Your task to perform on an android device: Do I have any events today? Image 0: 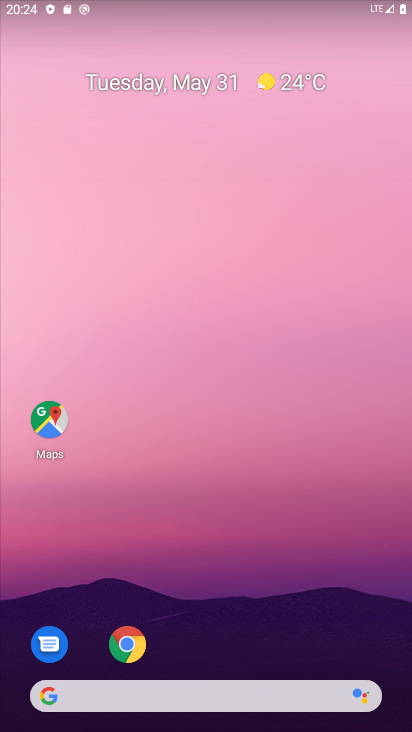
Step 0: drag from (309, 575) to (309, 115)
Your task to perform on an android device: Do I have any events today? Image 1: 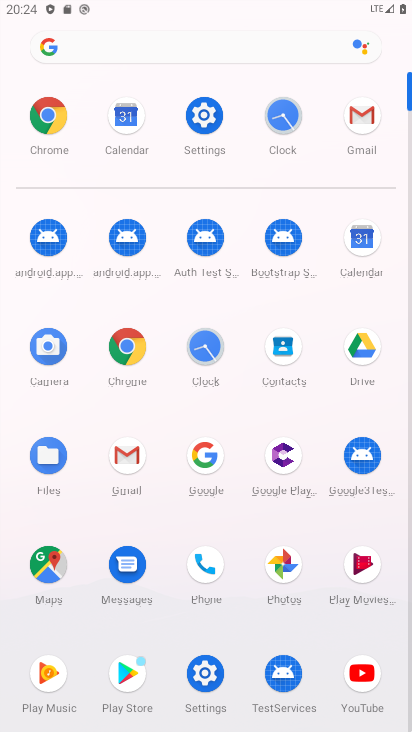
Step 1: click (362, 243)
Your task to perform on an android device: Do I have any events today? Image 2: 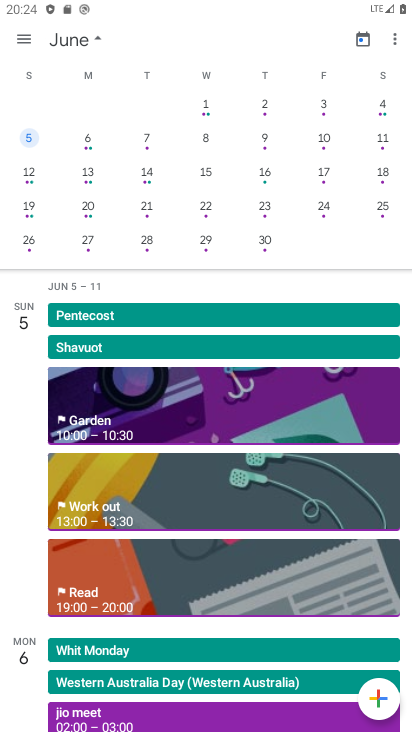
Step 2: click (81, 43)
Your task to perform on an android device: Do I have any events today? Image 3: 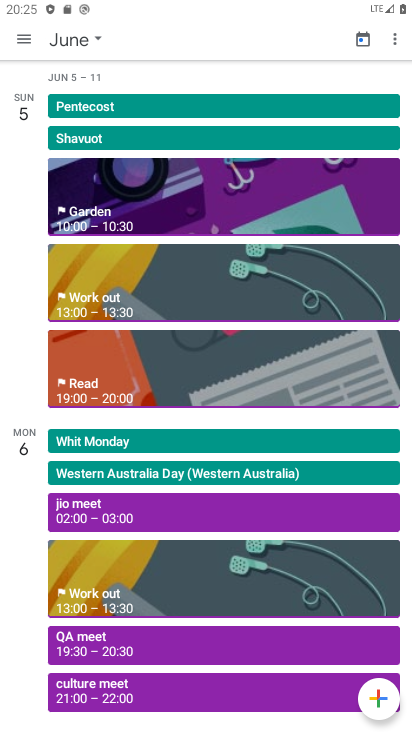
Step 3: click (70, 48)
Your task to perform on an android device: Do I have any events today? Image 4: 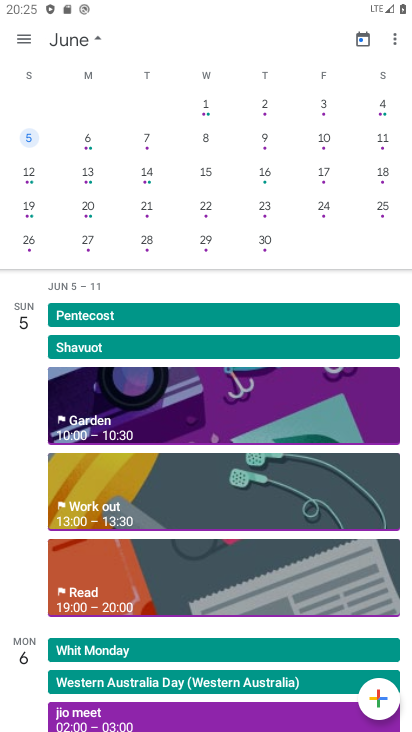
Step 4: drag from (75, 195) to (379, 221)
Your task to perform on an android device: Do I have any events today? Image 5: 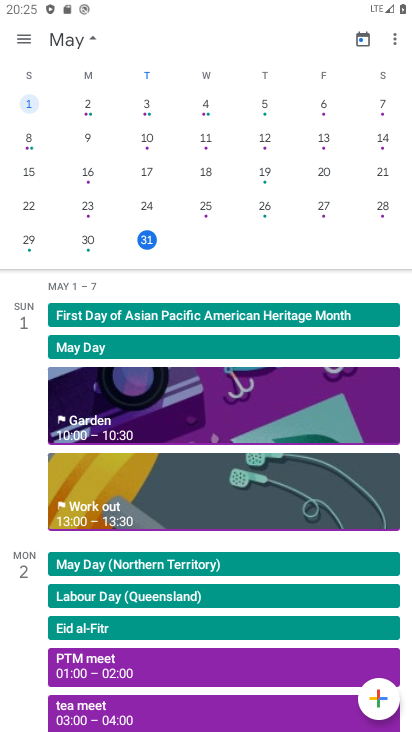
Step 5: click (146, 238)
Your task to perform on an android device: Do I have any events today? Image 6: 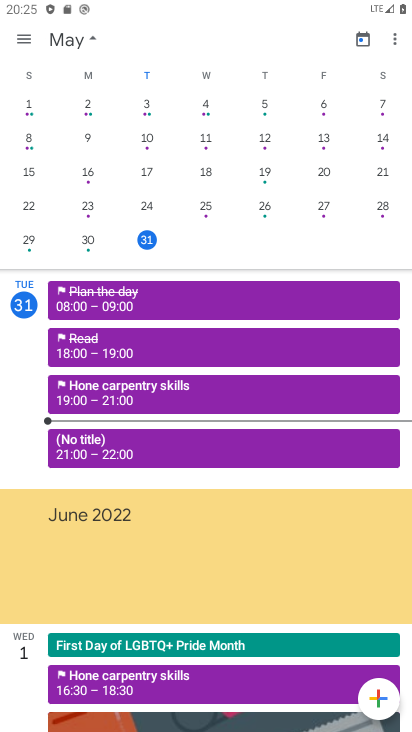
Step 6: task complete